Your task to perform on an android device: Go to Google maps Image 0: 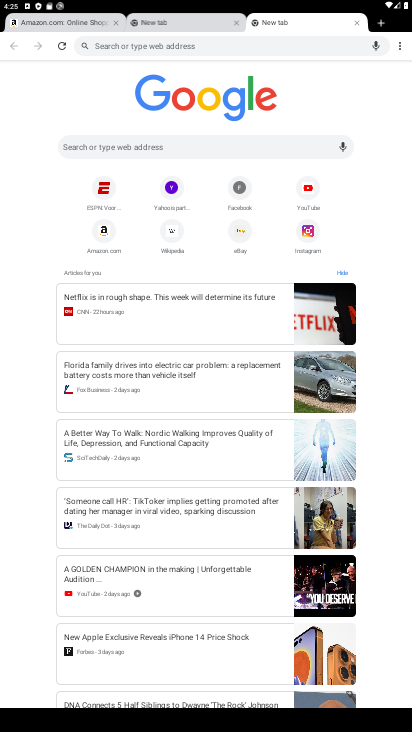
Step 0: press home button
Your task to perform on an android device: Go to Google maps Image 1: 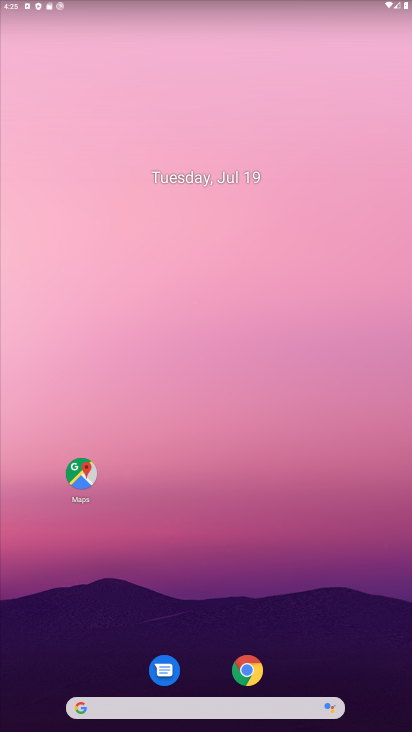
Step 1: drag from (248, 719) to (333, 168)
Your task to perform on an android device: Go to Google maps Image 2: 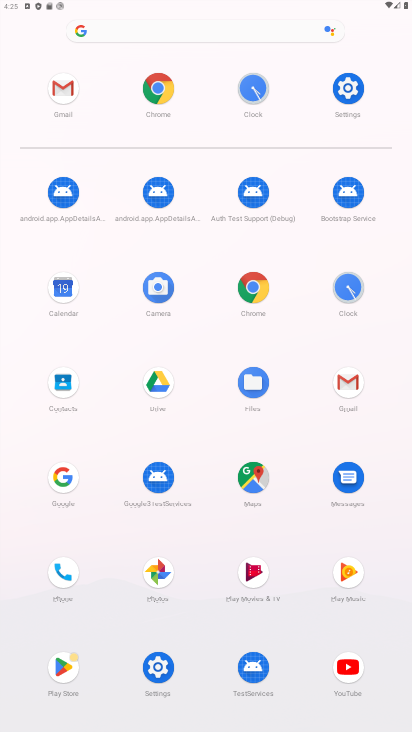
Step 2: click (245, 475)
Your task to perform on an android device: Go to Google maps Image 3: 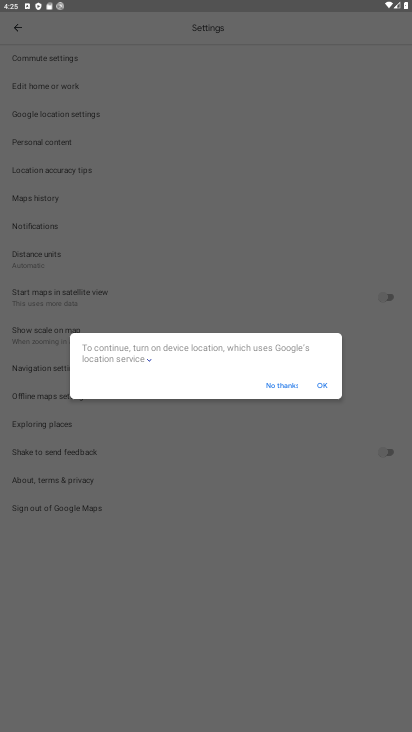
Step 3: task complete